Your task to perform on an android device: check data usage Image 0: 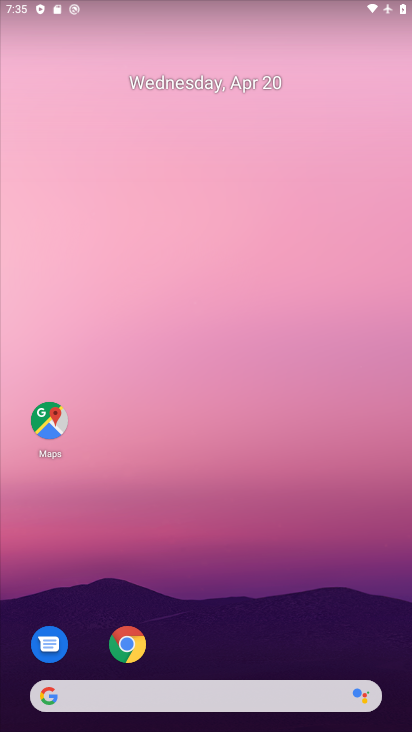
Step 0: drag from (340, 608) to (266, 74)
Your task to perform on an android device: check data usage Image 1: 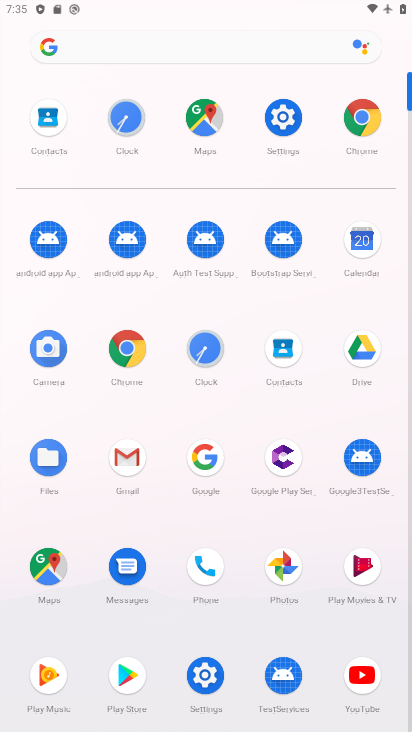
Step 1: click (282, 112)
Your task to perform on an android device: check data usage Image 2: 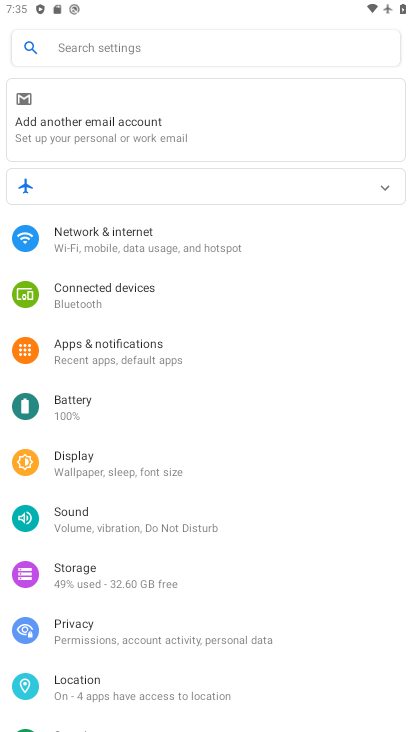
Step 2: click (182, 250)
Your task to perform on an android device: check data usage Image 3: 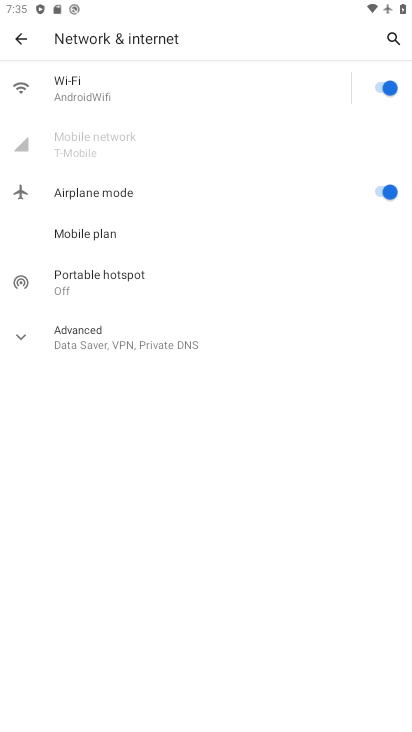
Step 3: task complete